Your task to perform on an android device: Go to location settings Image 0: 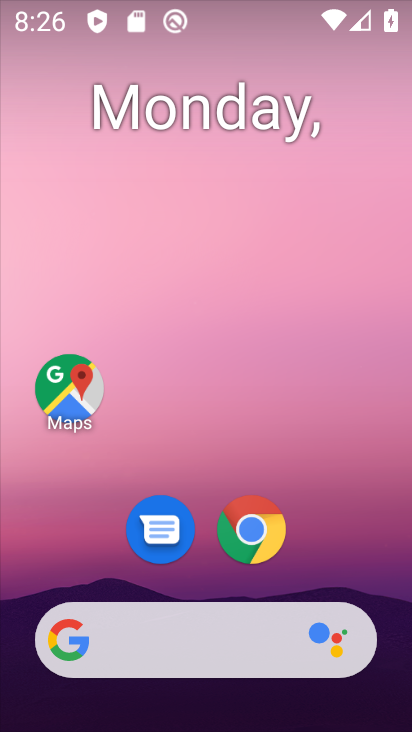
Step 0: drag from (33, 647) to (340, 193)
Your task to perform on an android device: Go to location settings Image 1: 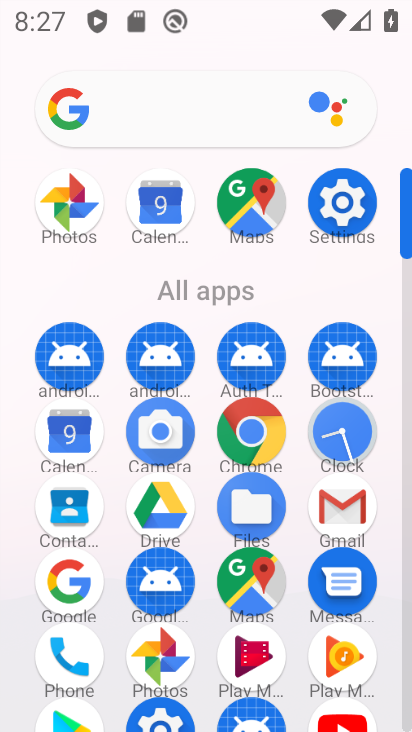
Step 1: click (339, 197)
Your task to perform on an android device: Go to location settings Image 2: 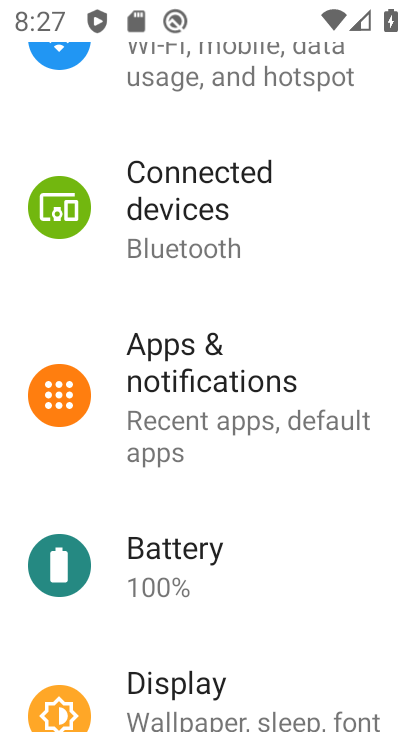
Step 2: drag from (128, 677) to (310, 260)
Your task to perform on an android device: Go to location settings Image 3: 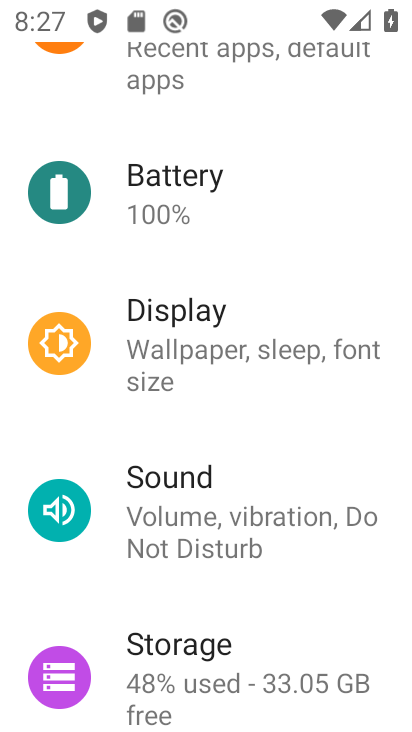
Step 3: drag from (187, 643) to (299, 263)
Your task to perform on an android device: Go to location settings Image 4: 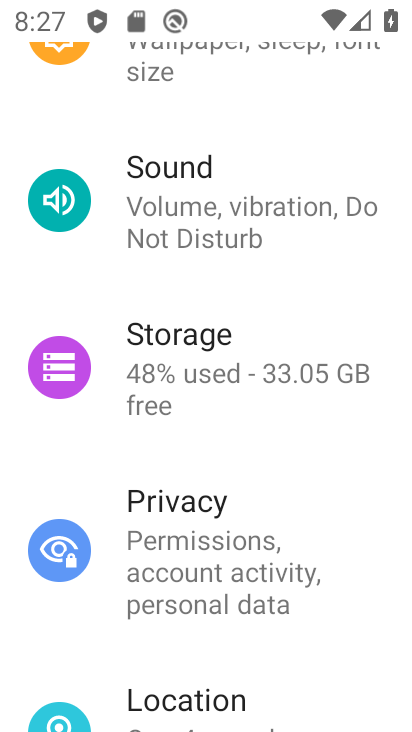
Step 4: click (170, 704)
Your task to perform on an android device: Go to location settings Image 5: 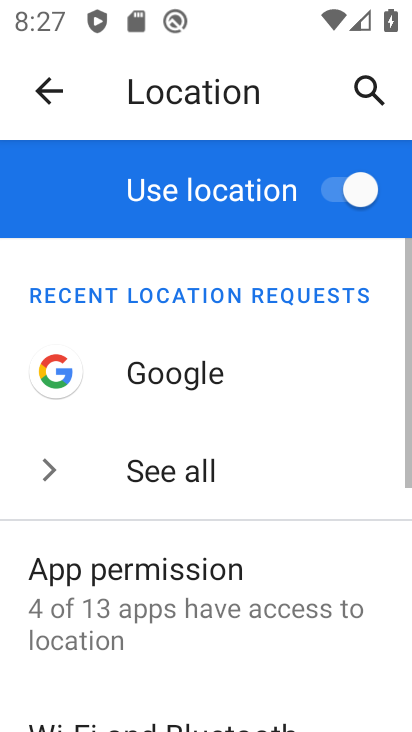
Step 5: task complete